Your task to perform on an android device: add a contact in the contacts app Image 0: 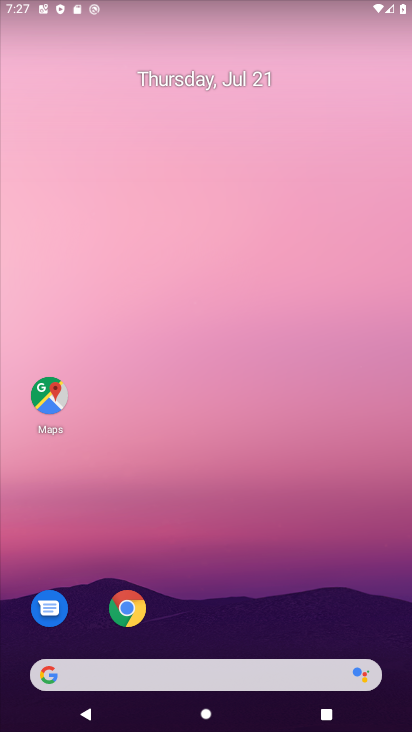
Step 0: drag from (181, 675) to (312, 157)
Your task to perform on an android device: add a contact in the contacts app Image 1: 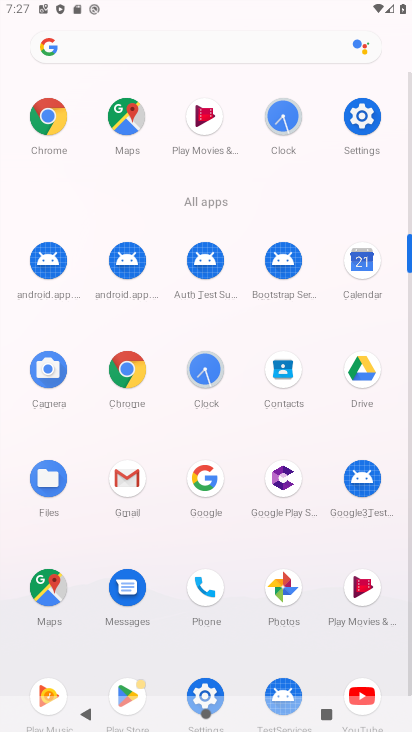
Step 1: click (284, 370)
Your task to perform on an android device: add a contact in the contacts app Image 2: 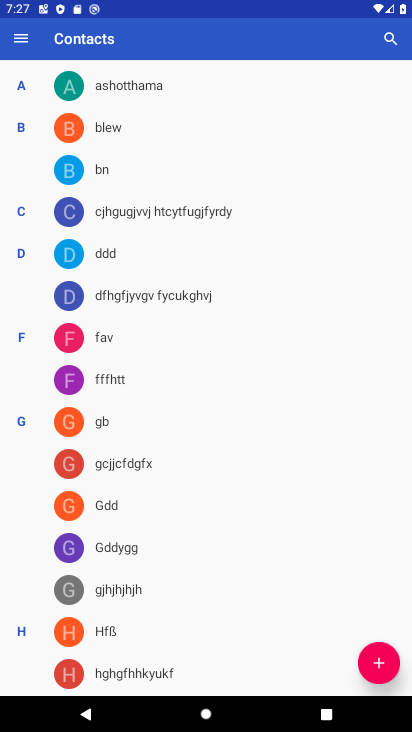
Step 2: click (378, 663)
Your task to perform on an android device: add a contact in the contacts app Image 3: 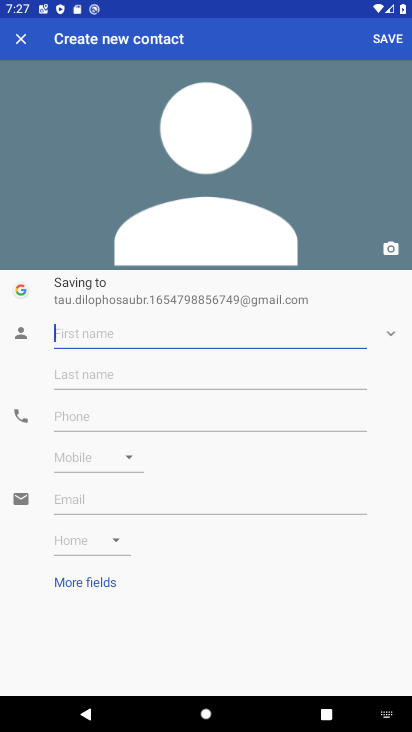
Step 3: click (210, 332)
Your task to perform on an android device: add a contact in the contacts app Image 4: 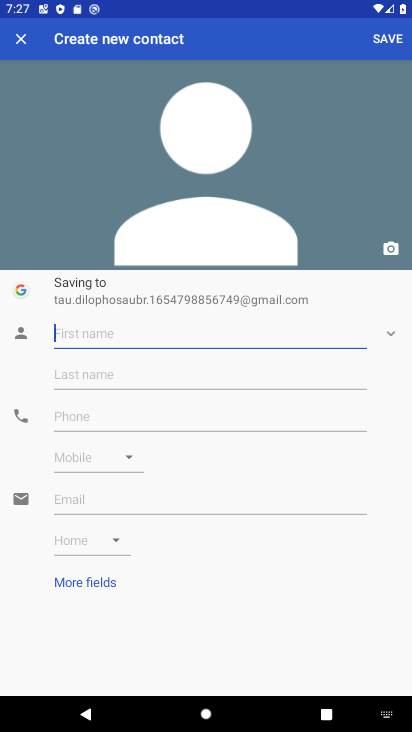
Step 4: type "Venkatesh"
Your task to perform on an android device: add a contact in the contacts app Image 5: 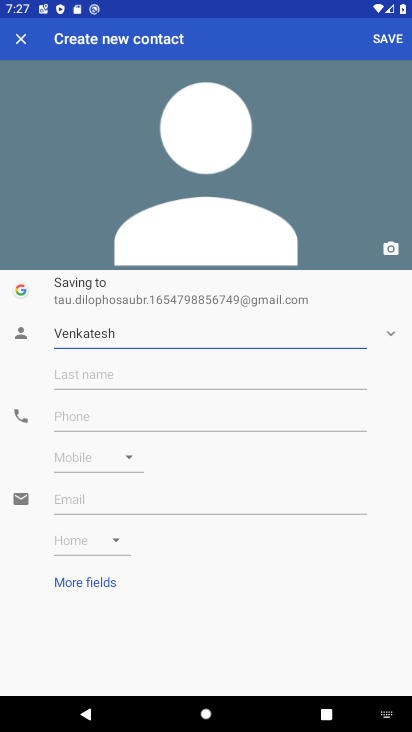
Step 5: click (204, 374)
Your task to perform on an android device: add a contact in the contacts app Image 6: 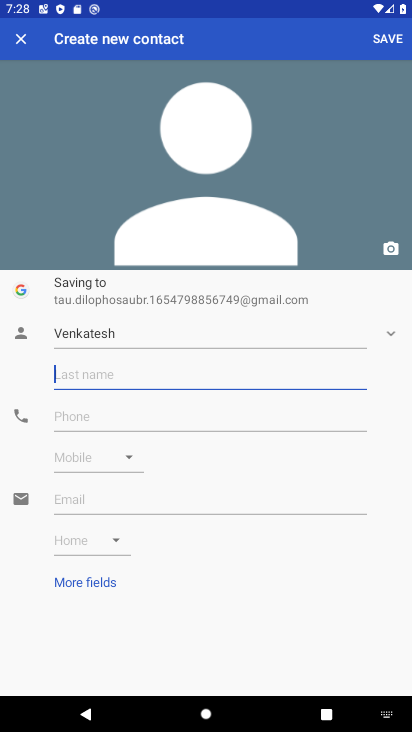
Step 6: type "Prasad"
Your task to perform on an android device: add a contact in the contacts app Image 7: 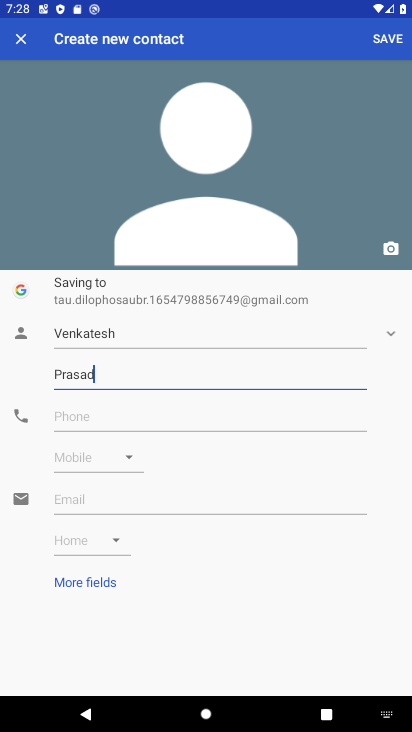
Step 7: click (215, 408)
Your task to perform on an android device: add a contact in the contacts app Image 8: 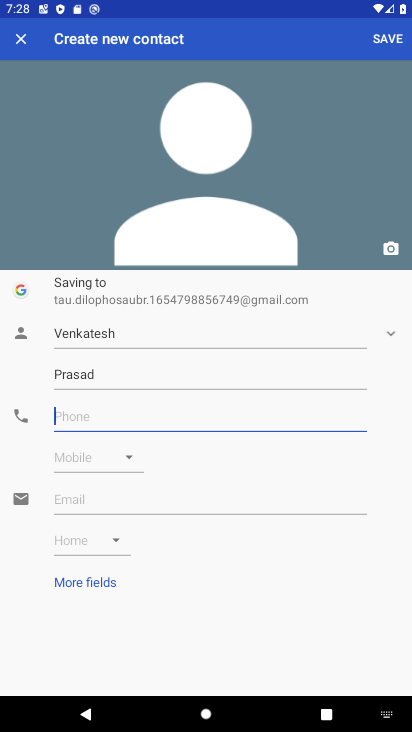
Step 8: type "0987654321"
Your task to perform on an android device: add a contact in the contacts app Image 9: 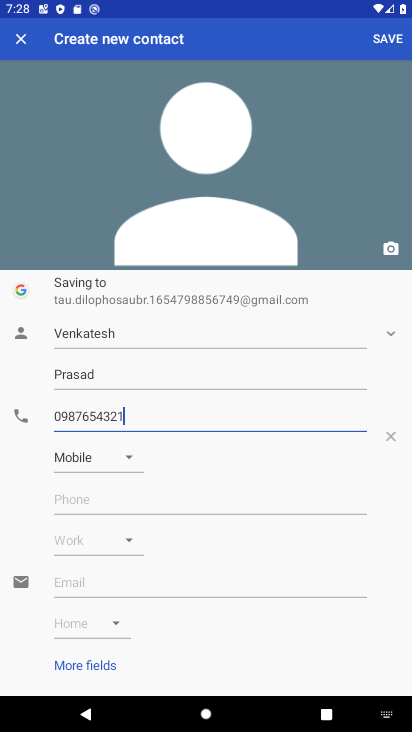
Step 9: click (393, 35)
Your task to perform on an android device: add a contact in the contacts app Image 10: 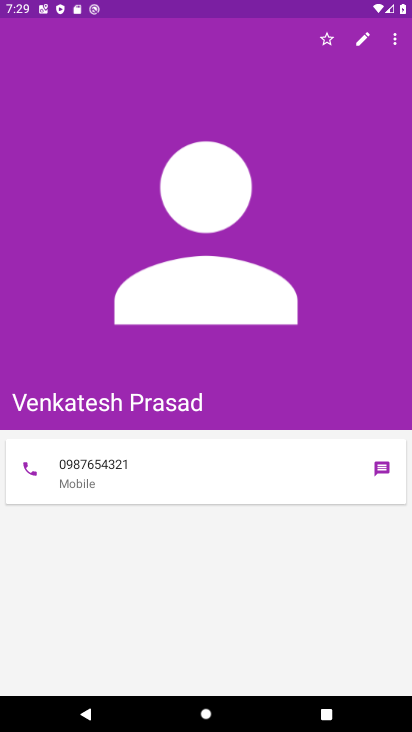
Step 10: task complete